Your task to perform on an android device: manage bookmarks in the chrome app Image 0: 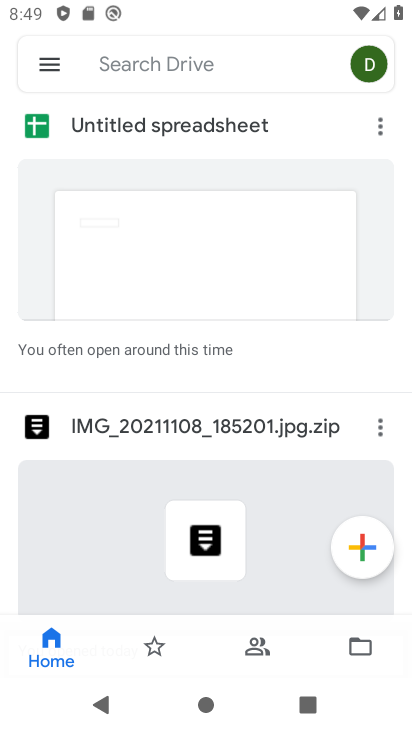
Step 0: press home button
Your task to perform on an android device: manage bookmarks in the chrome app Image 1: 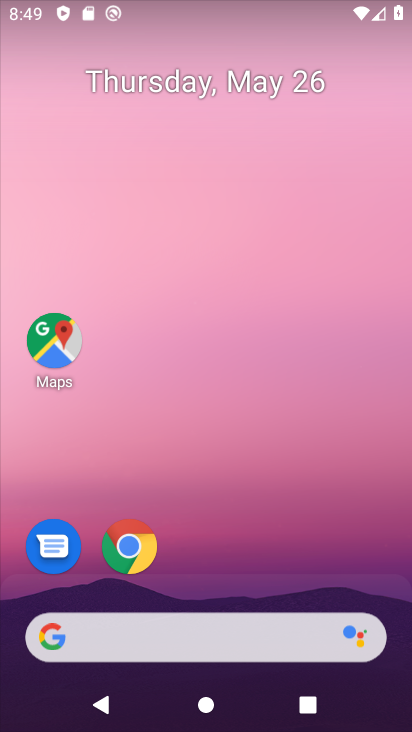
Step 1: click (132, 551)
Your task to perform on an android device: manage bookmarks in the chrome app Image 2: 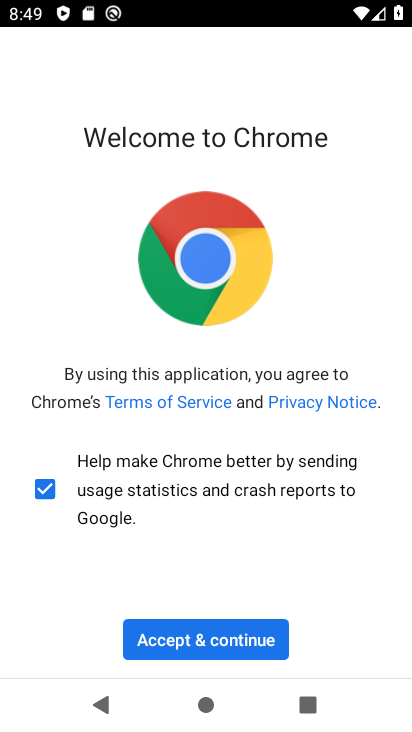
Step 2: click (225, 640)
Your task to perform on an android device: manage bookmarks in the chrome app Image 3: 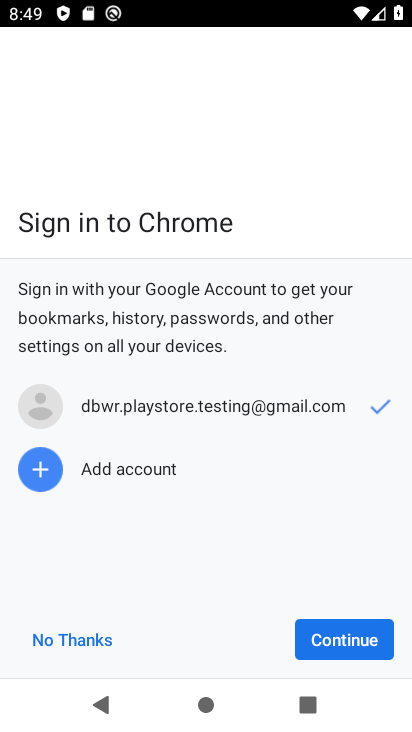
Step 3: click (306, 642)
Your task to perform on an android device: manage bookmarks in the chrome app Image 4: 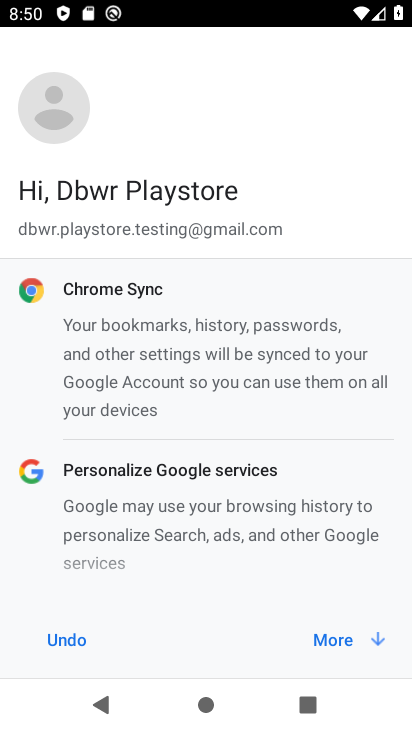
Step 4: click (353, 640)
Your task to perform on an android device: manage bookmarks in the chrome app Image 5: 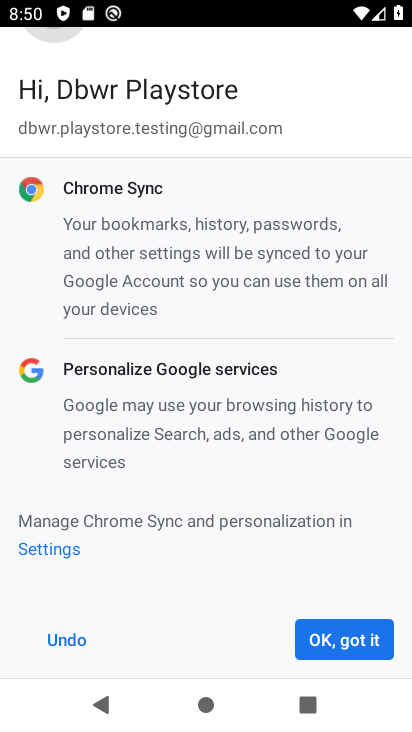
Step 5: click (353, 640)
Your task to perform on an android device: manage bookmarks in the chrome app Image 6: 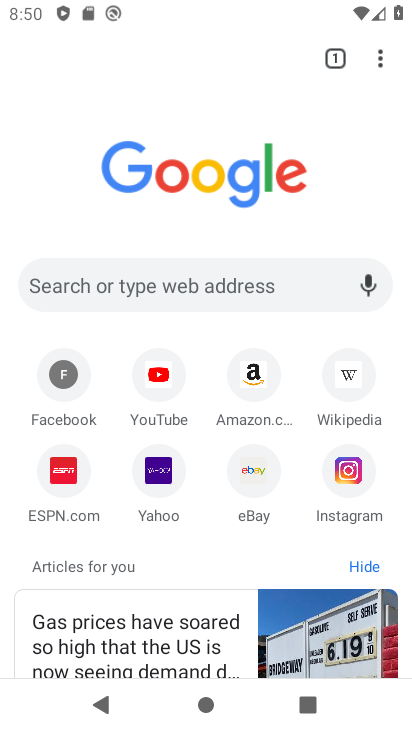
Step 6: click (379, 54)
Your task to perform on an android device: manage bookmarks in the chrome app Image 7: 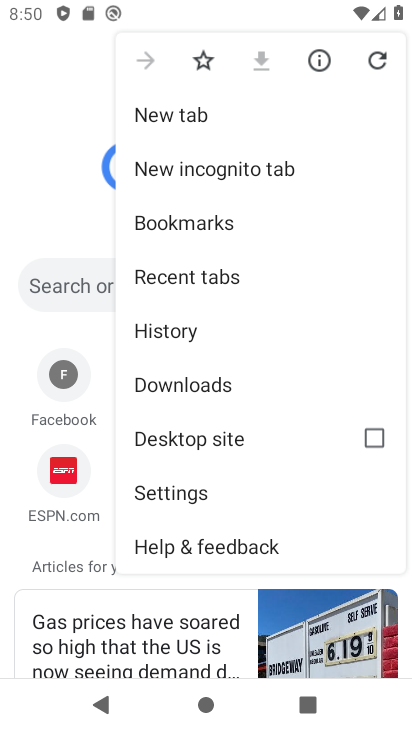
Step 7: click (292, 221)
Your task to perform on an android device: manage bookmarks in the chrome app Image 8: 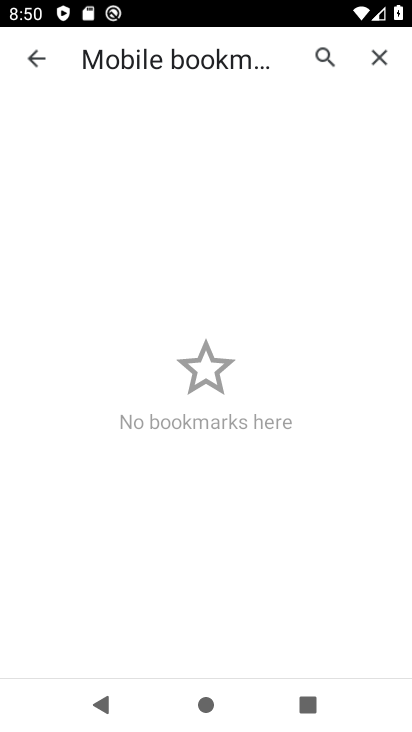
Step 8: task complete